Your task to perform on an android device: open app "ZOOM Cloud Meetings" (install if not already installed) Image 0: 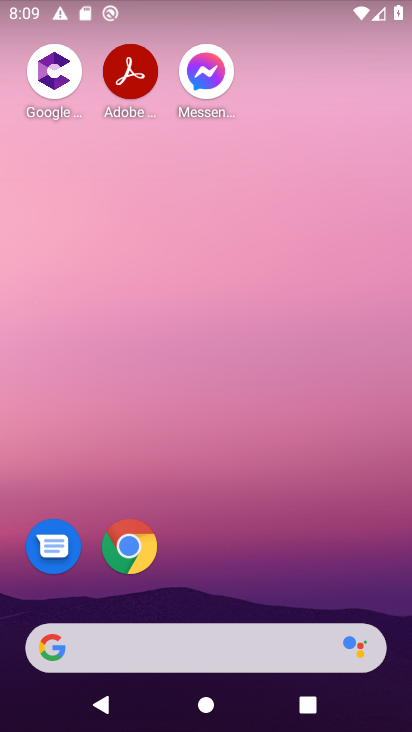
Step 0: press home button
Your task to perform on an android device: open app "ZOOM Cloud Meetings" (install if not already installed) Image 1: 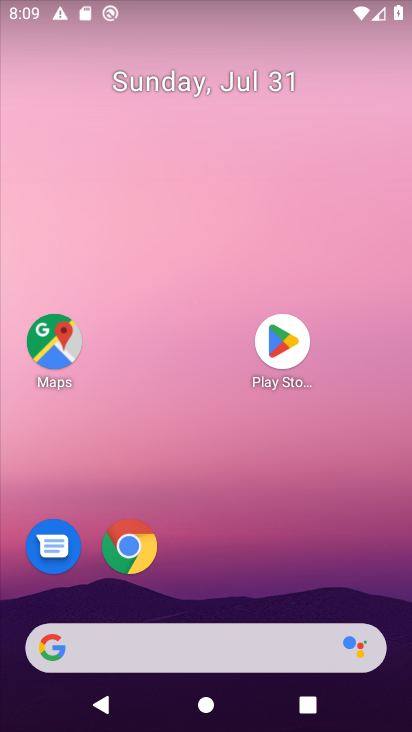
Step 1: click (271, 341)
Your task to perform on an android device: open app "ZOOM Cloud Meetings" (install if not already installed) Image 2: 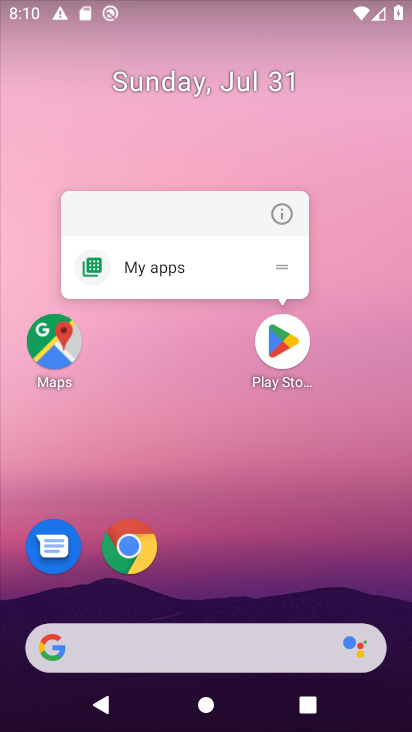
Step 2: click (288, 354)
Your task to perform on an android device: open app "ZOOM Cloud Meetings" (install if not already installed) Image 3: 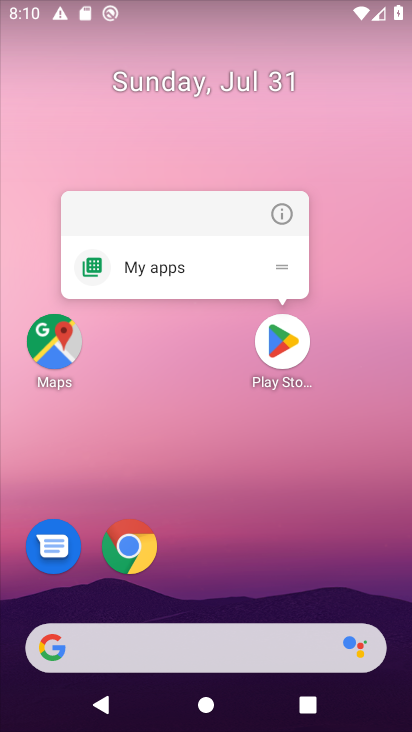
Step 3: click (288, 354)
Your task to perform on an android device: open app "ZOOM Cloud Meetings" (install if not already installed) Image 4: 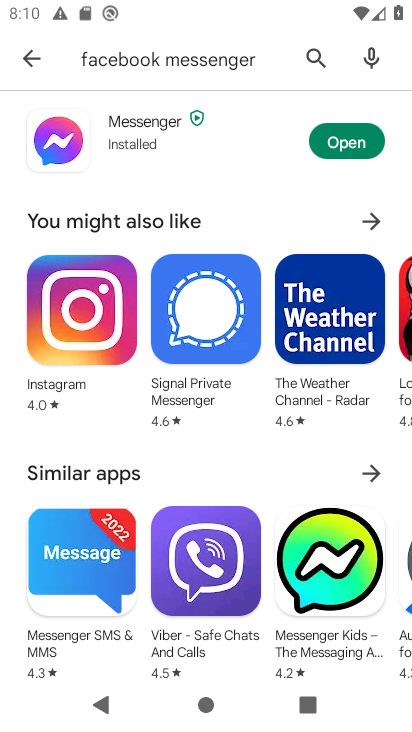
Step 4: click (313, 55)
Your task to perform on an android device: open app "ZOOM Cloud Meetings" (install if not already installed) Image 5: 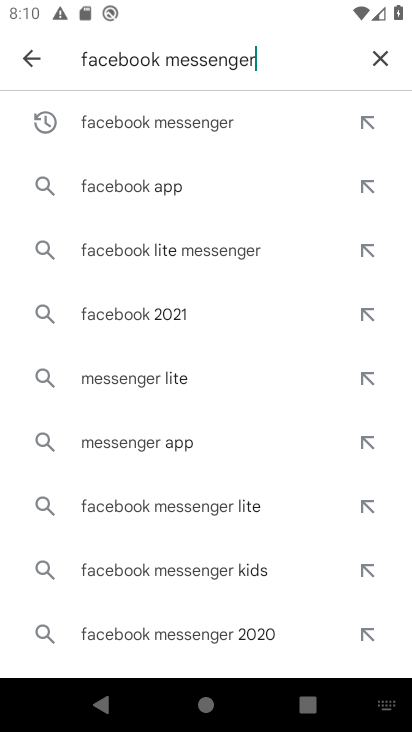
Step 5: click (379, 55)
Your task to perform on an android device: open app "ZOOM Cloud Meetings" (install if not already installed) Image 6: 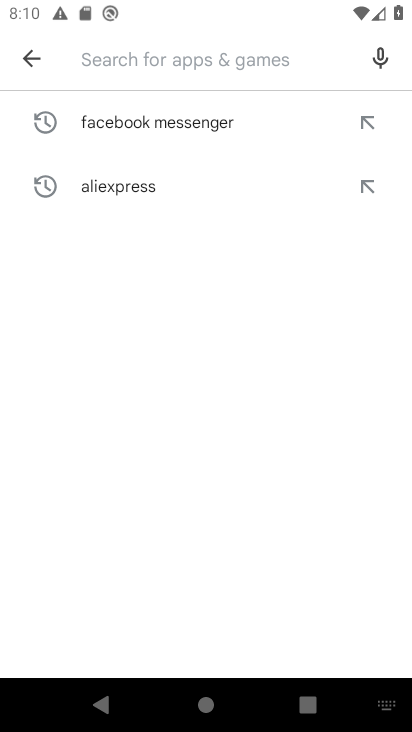
Step 6: type "ZOOM Cloud Meetings"
Your task to perform on an android device: open app "ZOOM Cloud Meetings" (install if not already installed) Image 7: 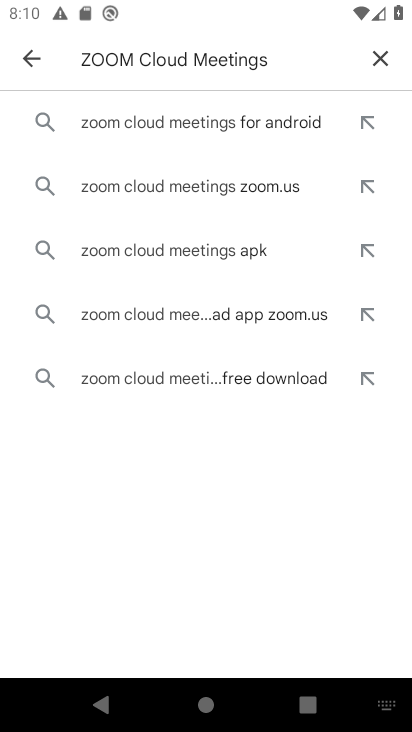
Step 7: click (253, 119)
Your task to perform on an android device: open app "ZOOM Cloud Meetings" (install if not already installed) Image 8: 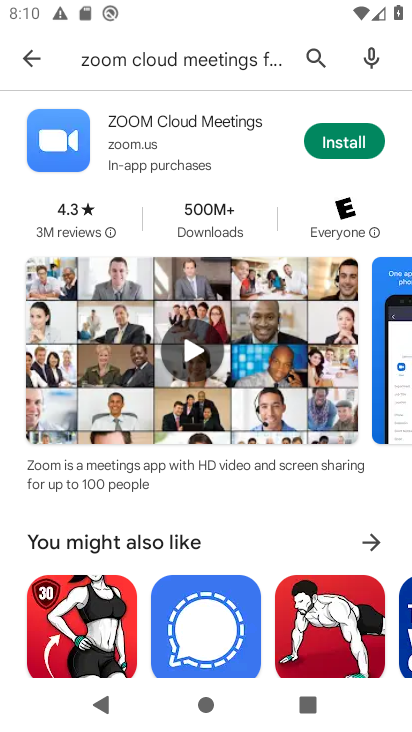
Step 8: click (342, 142)
Your task to perform on an android device: open app "ZOOM Cloud Meetings" (install if not already installed) Image 9: 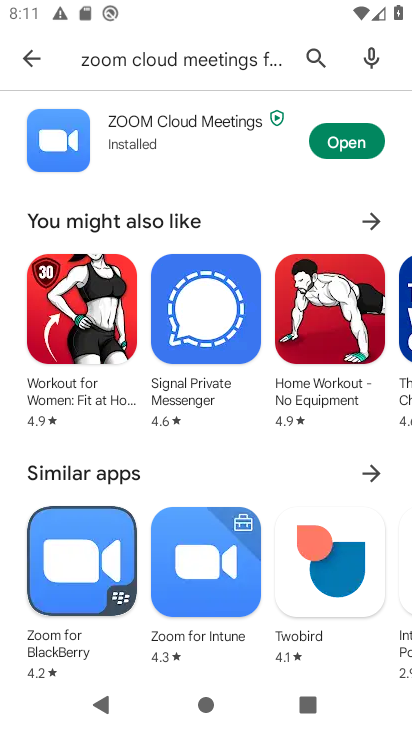
Step 9: click (330, 136)
Your task to perform on an android device: open app "ZOOM Cloud Meetings" (install if not already installed) Image 10: 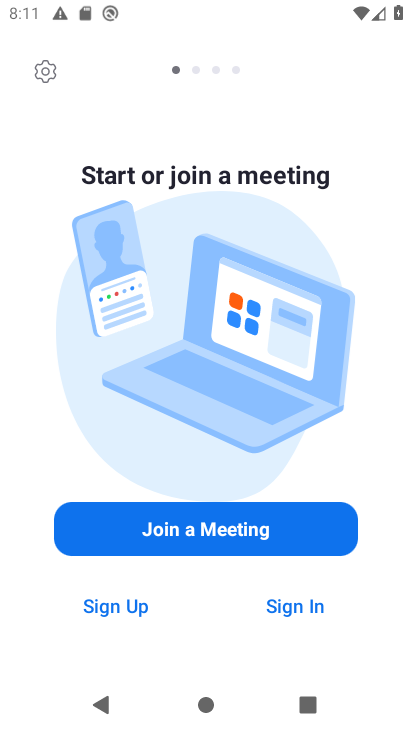
Step 10: task complete